Your task to perform on an android device: Open the calendar and show me this week's events Image 0: 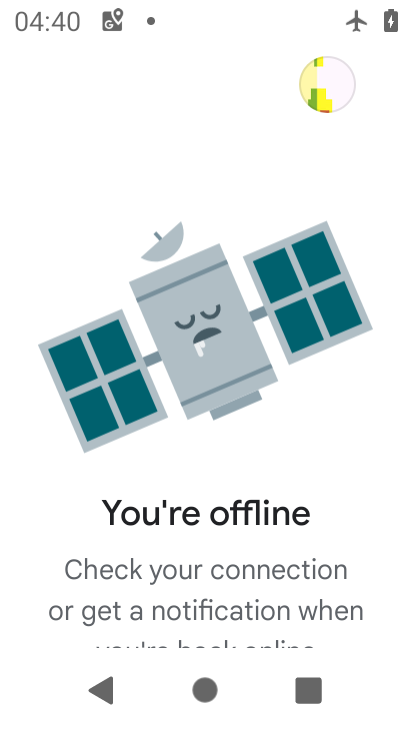
Step 0: press home button
Your task to perform on an android device: Open the calendar and show me this week's events Image 1: 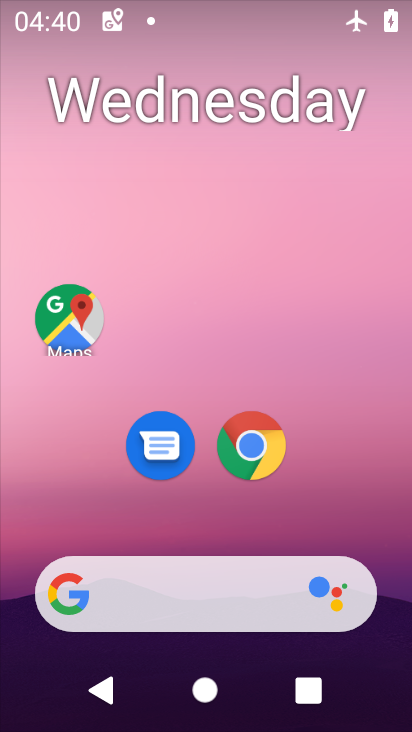
Step 1: click (279, 118)
Your task to perform on an android device: Open the calendar and show me this week's events Image 2: 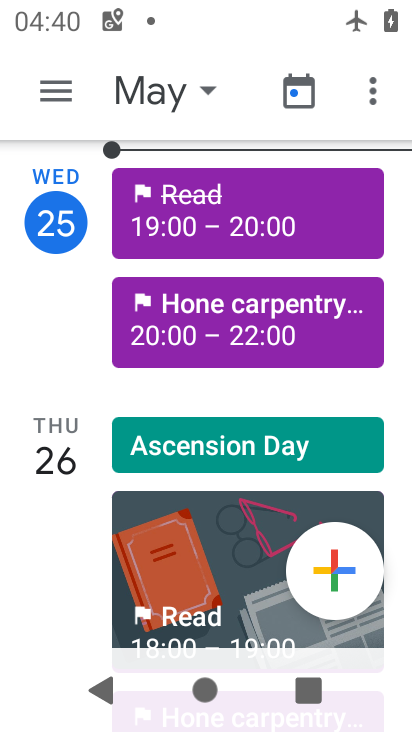
Step 2: click (152, 87)
Your task to perform on an android device: Open the calendar and show me this week's events Image 3: 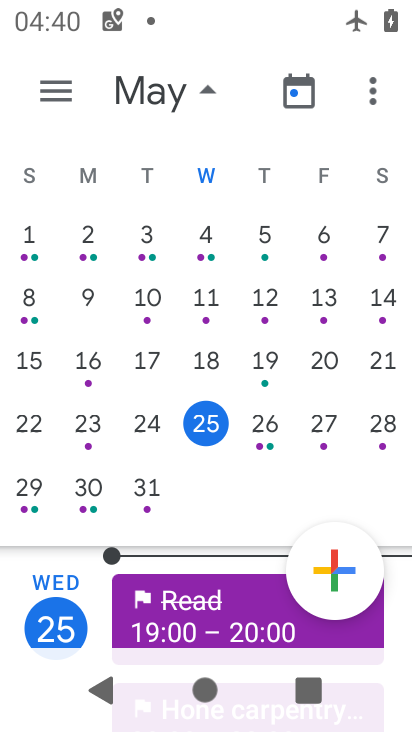
Step 3: task complete